Your task to perform on an android device: toggle data saver in the chrome app Image 0: 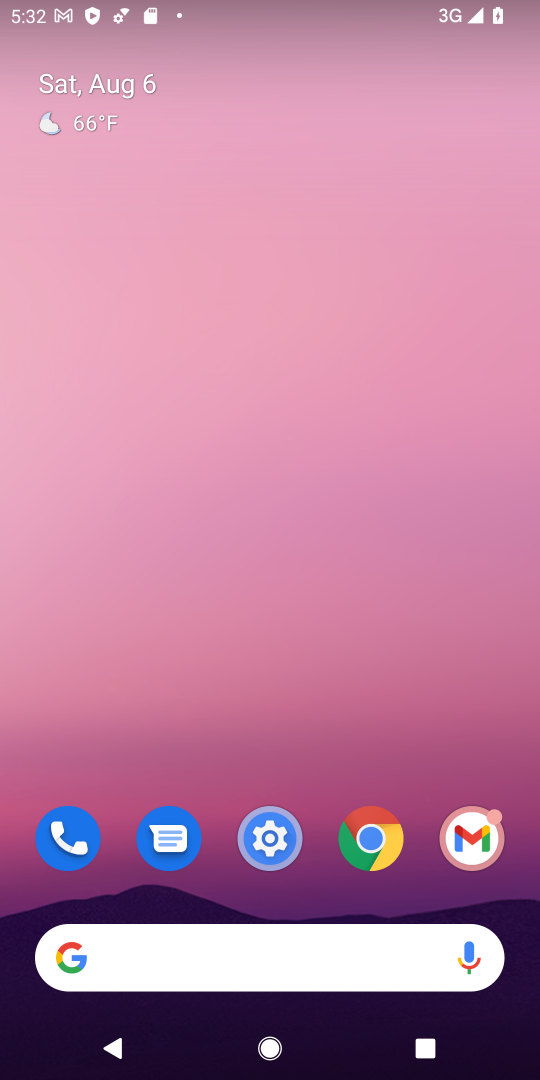
Step 0: drag from (285, 731) to (410, 8)
Your task to perform on an android device: toggle data saver in the chrome app Image 1: 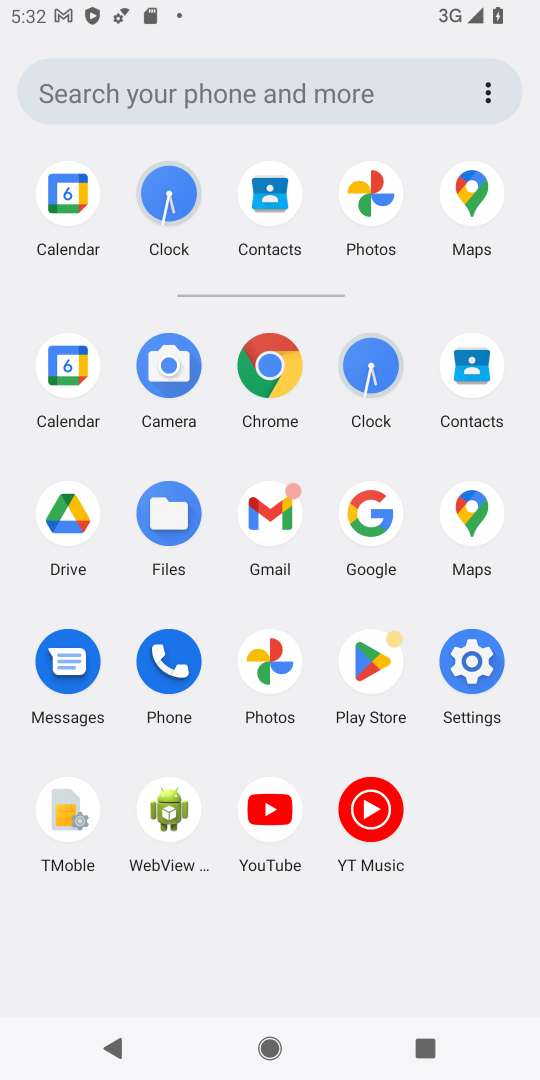
Step 1: click (288, 386)
Your task to perform on an android device: toggle data saver in the chrome app Image 2: 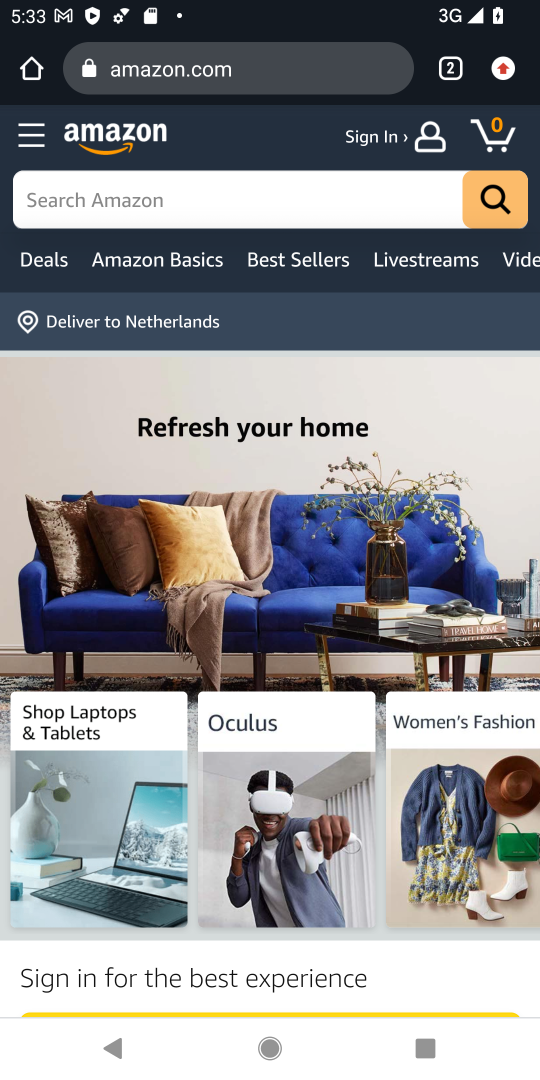
Step 2: click (494, 75)
Your task to perform on an android device: toggle data saver in the chrome app Image 3: 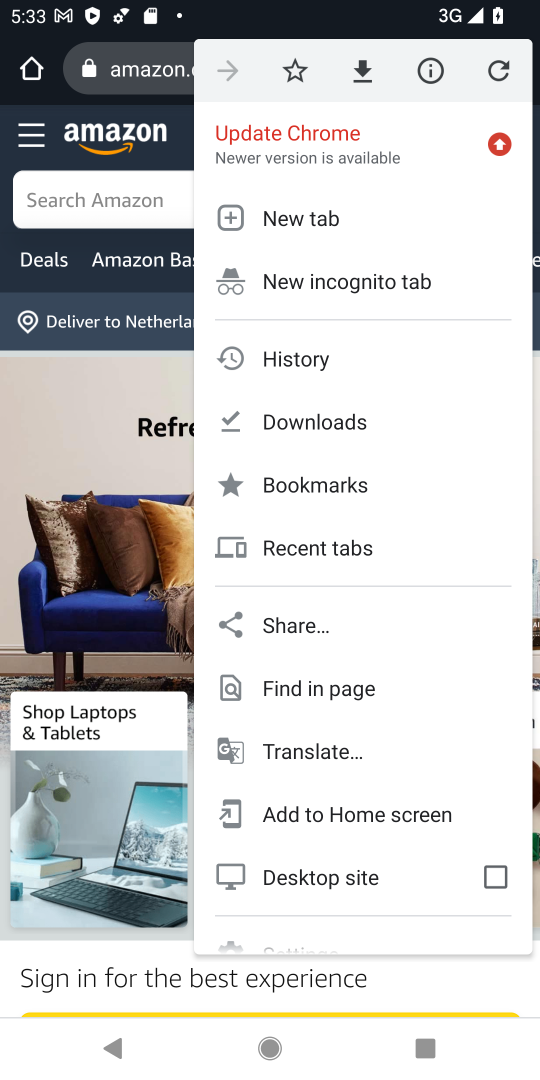
Step 3: drag from (350, 712) to (303, 862)
Your task to perform on an android device: toggle data saver in the chrome app Image 4: 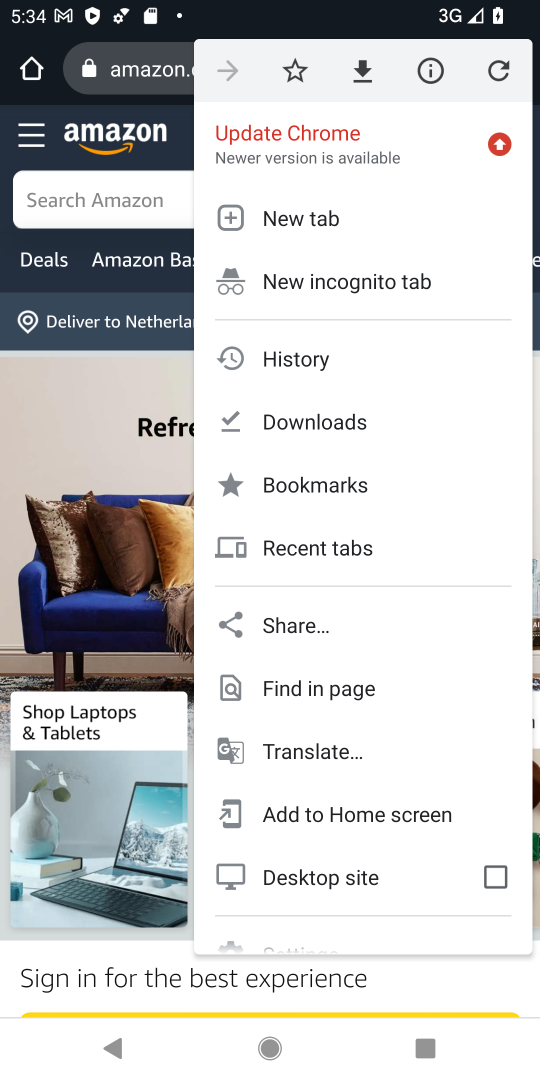
Step 4: drag from (320, 826) to (352, 456)
Your task to perform on an android device: toggle data saver in the chrome app Image 5: 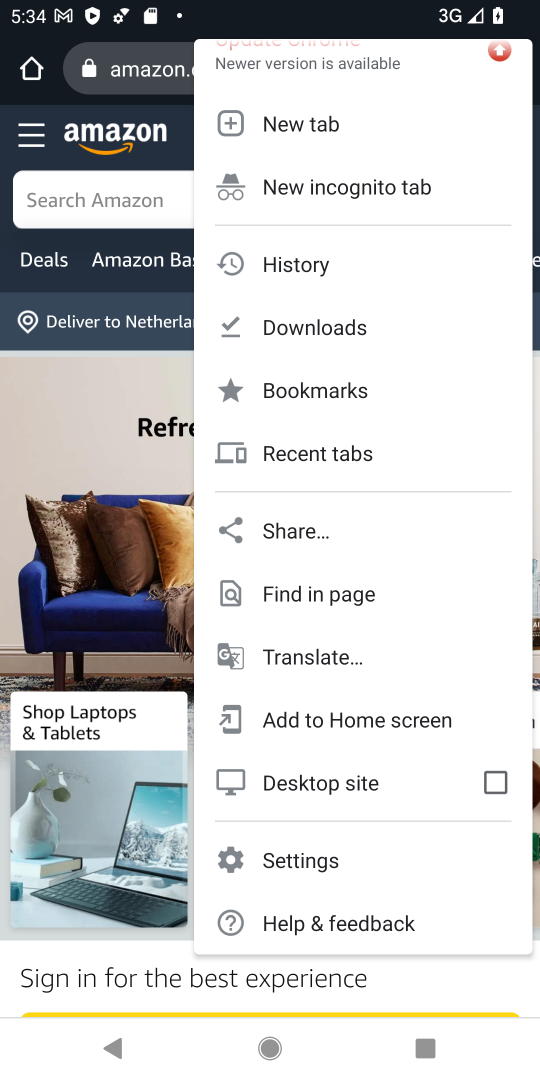
Step 5: click (311, 858)
Your task to perform on an android device: toggle data saver in the chrome app Image 6: 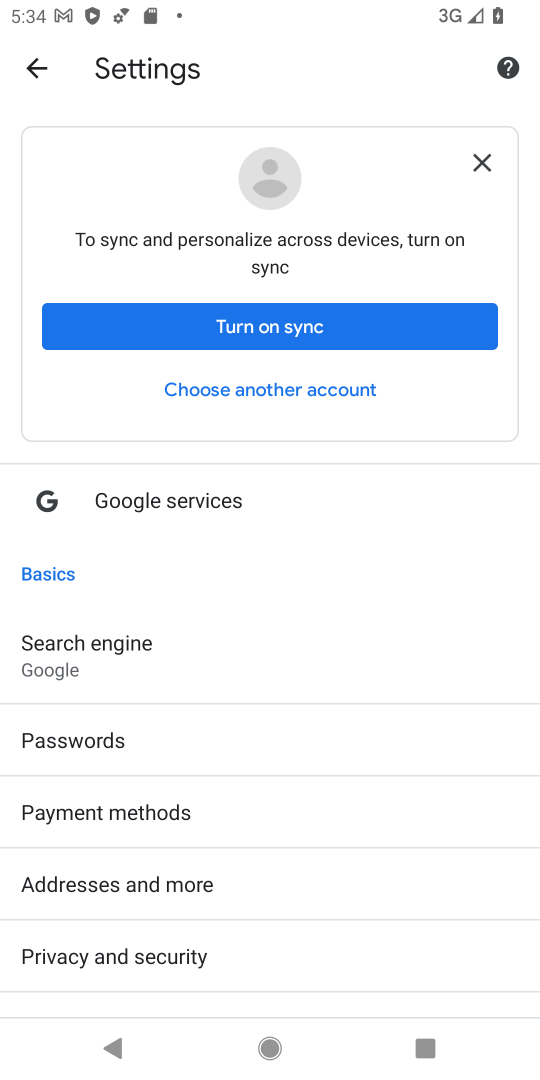
Step 6: drag from (187, 940) to (261, 299)
Your task to perform on an android device: toggle data saver in the chrome app Image 7: 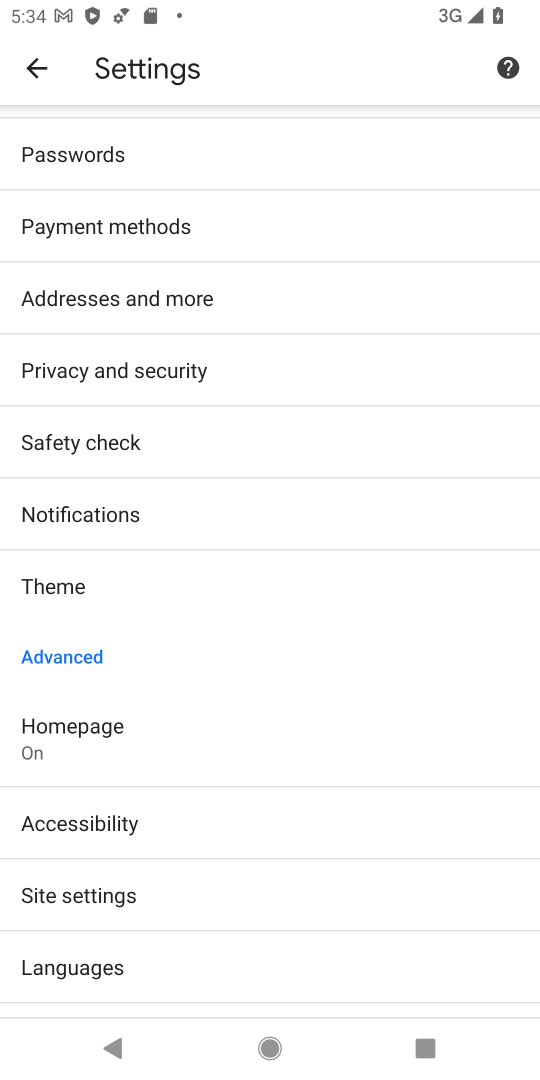
Step 7: drag from (174, 884) to (182, 602)
Your task to perform on an android device: toggle data saver in the chrome app Image 8: 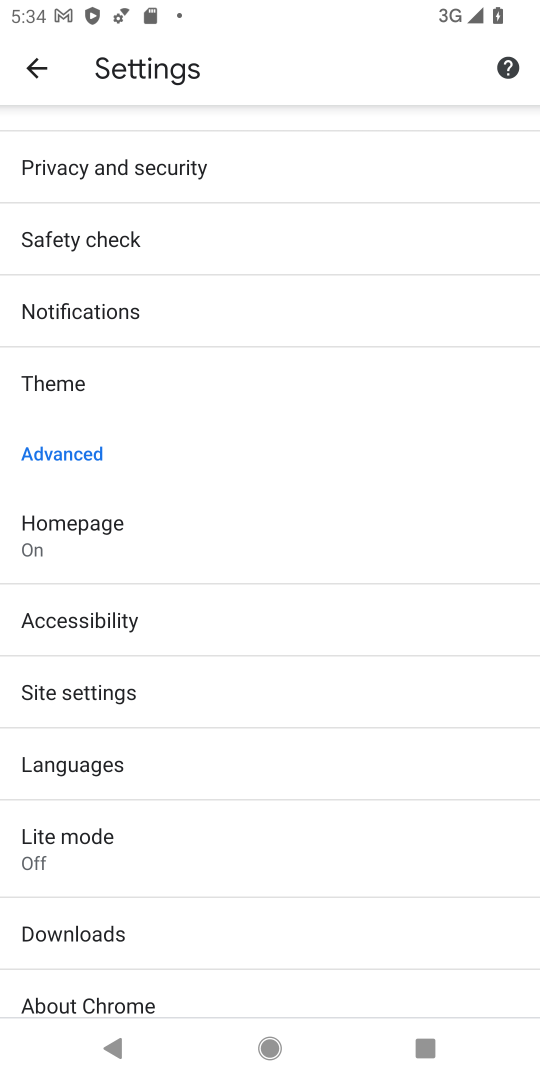
Step 8: click (124, 856)
Your task to perform on an android device: toggle data saver in the chrome app Image 9: 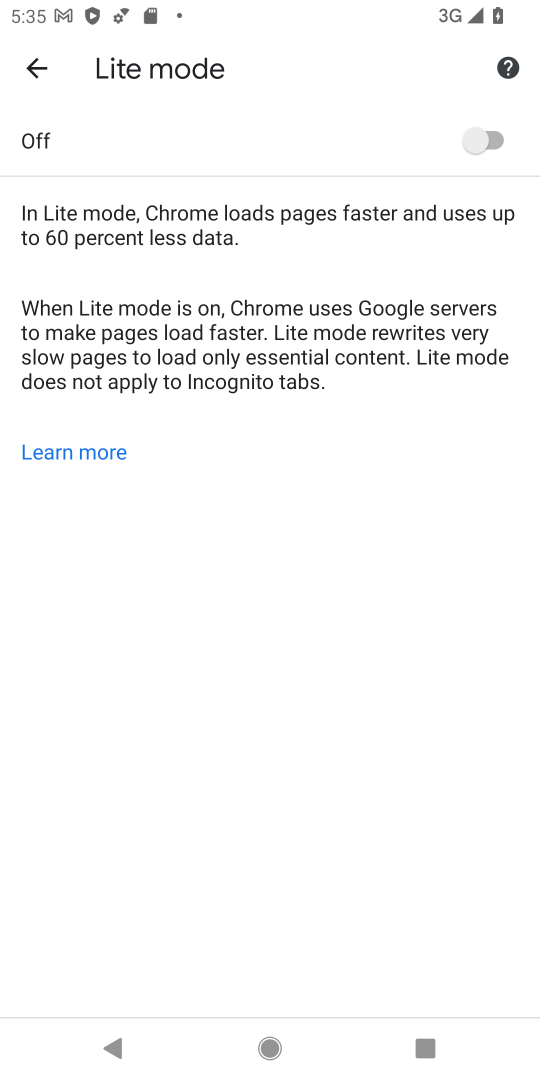
Step 9: click (435, 149)
Your task to perform on an android device: toggle data saver in the chrome app Image 10: 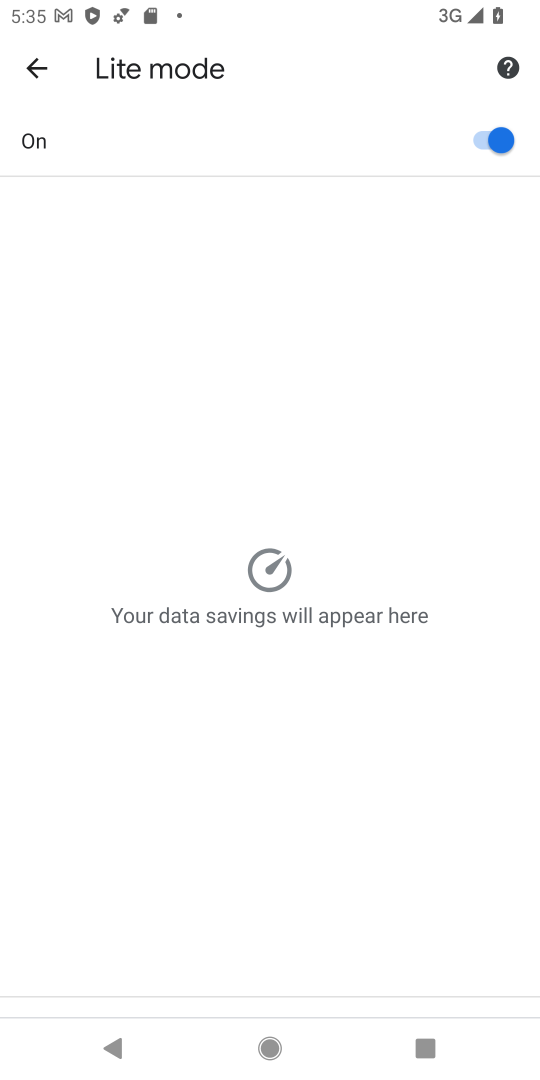
Step 10: task complete